Your task to perform on an android device: turn on airplane mode Image 0: 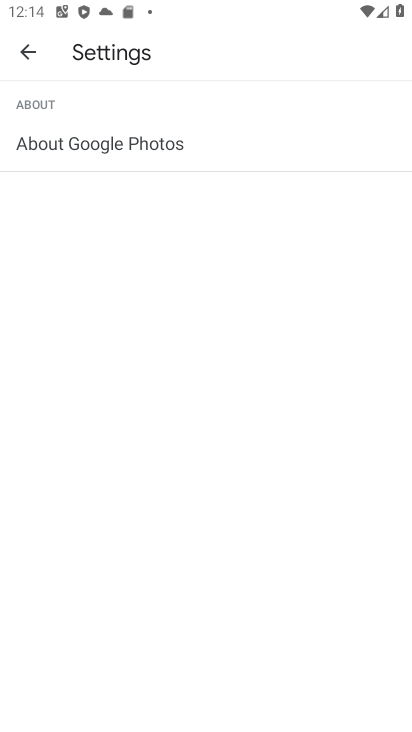
Step 0: task complete